Your task to perform on an android device: find photos in the google photos app Image 0: 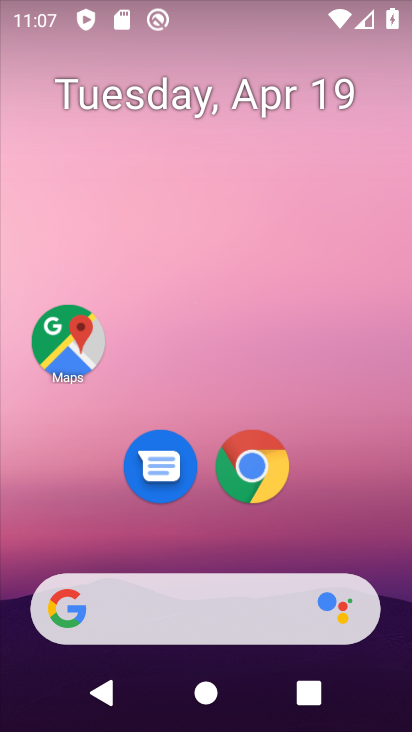
Step 0: drag from (163, 528) to (313, 151)
Your task to perform on an android device: find photos in the google photos app Image 1: 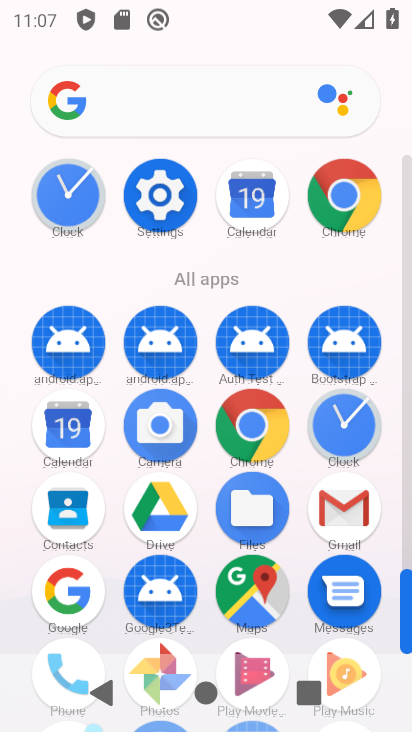
Step 1: click (160, 654)
Your task to perform on an android device: find photos in the google photos app Image 2: 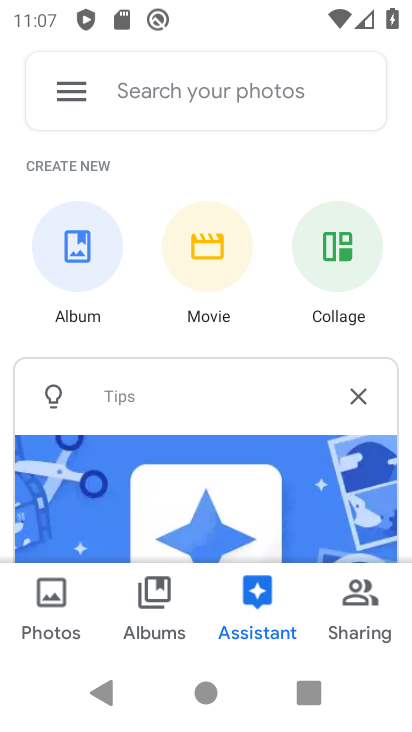
Step 2: click (50, 610)
Your task to perform on an android device: find photos in the google photos app Image 3: 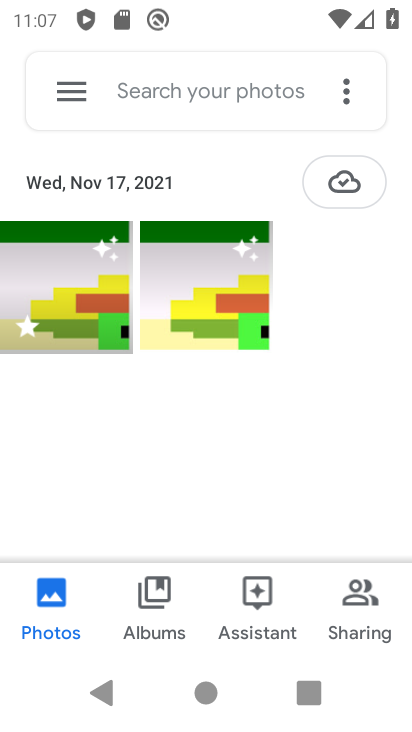
Step 3: task complete